Your task to perform on an android device: move an email to a new category in the gmail app Image 0: 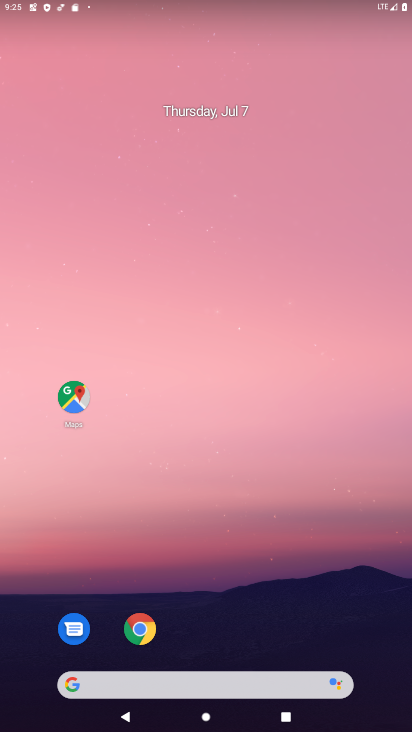
Step 0: drag from (275, 552) to (240, 60)
Your task to perform on an android device: move an email to a new category in the gmail app Image 1: 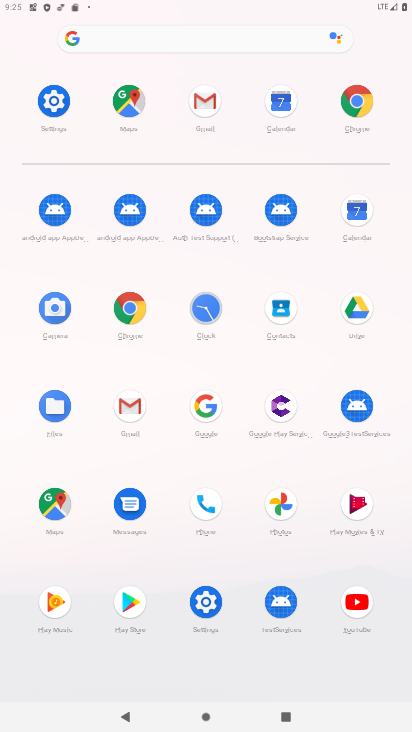
Step 1: click (205, 103)
Your task to perform on an android device: move an email to a new category in the gmail app Image 2: 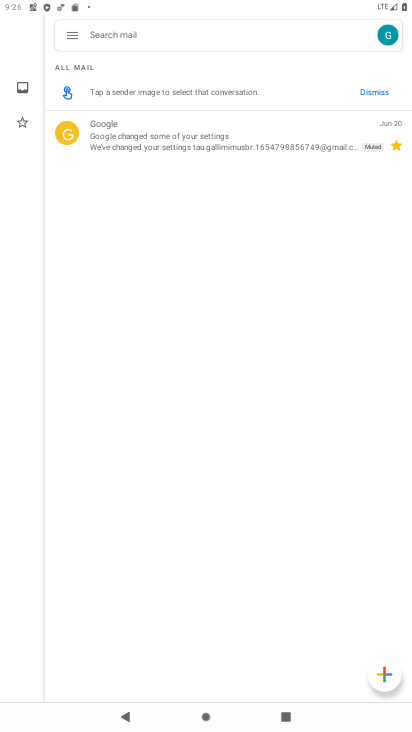
Step 2: click (69, 39)
Your task to perform on an android device: move an email to a new category in the gmail app Image 3: 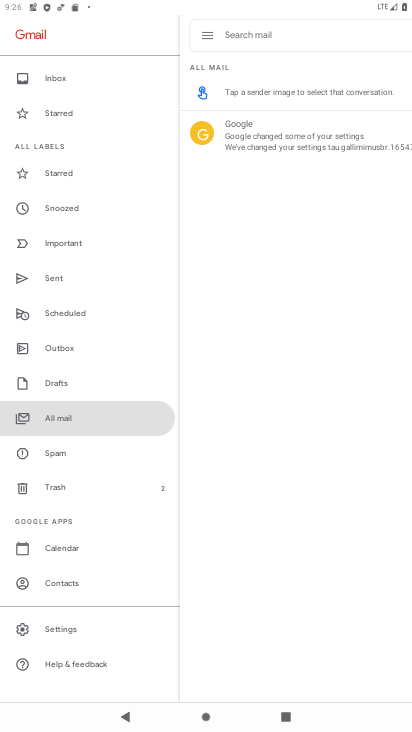
Step 3: click (252, 137)
Your task to perform on an android device: move an email to a new category in the gmail app Image 4: 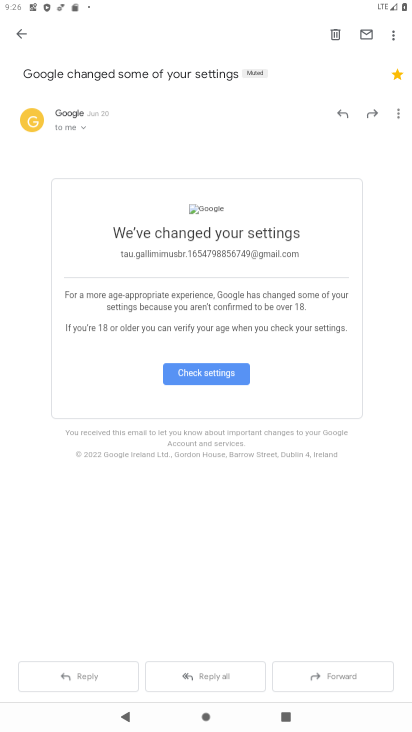
Step 4: click (393, 33)
Your task to perform on an android device: move an email to a new category in the gmail app Image 5: 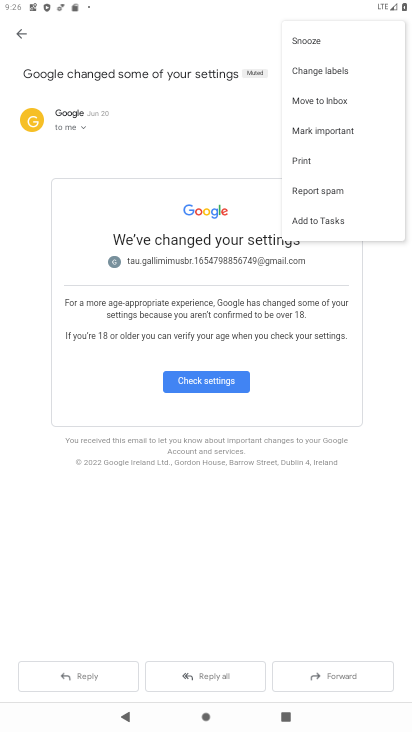
Step 5: click (324, 97)
Your task to perform on an android device: move an email to a new category in the gmail app Image 6: 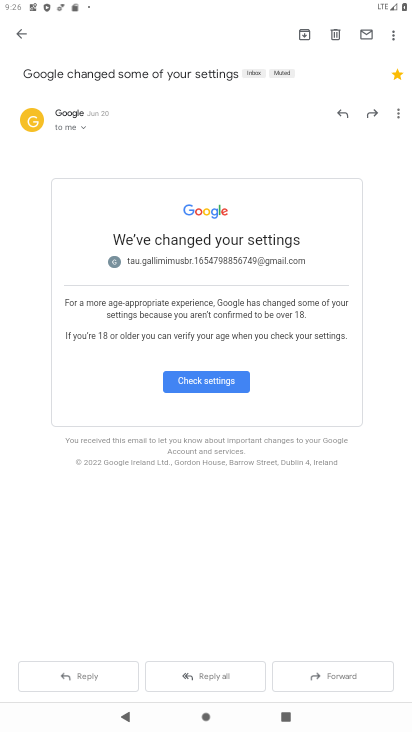
Step 6: task complete